Your task to perform on an android device: Open location settings Image 0: 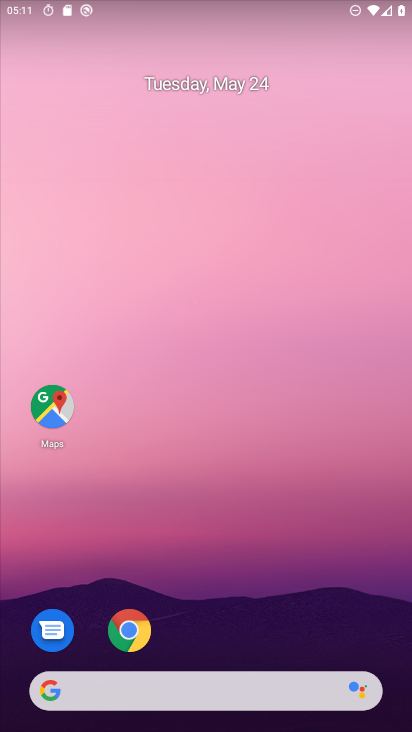
Step 0: drag from (231, 607) to (181, 390)
Your task to perform on an android device: Open location settings Image 1: 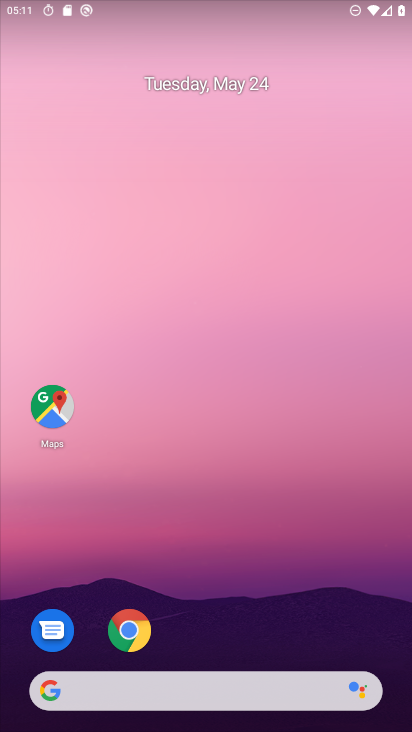
Step 1: click (214, 24)
Your task to perform on an android device: Open location settings Image 2: 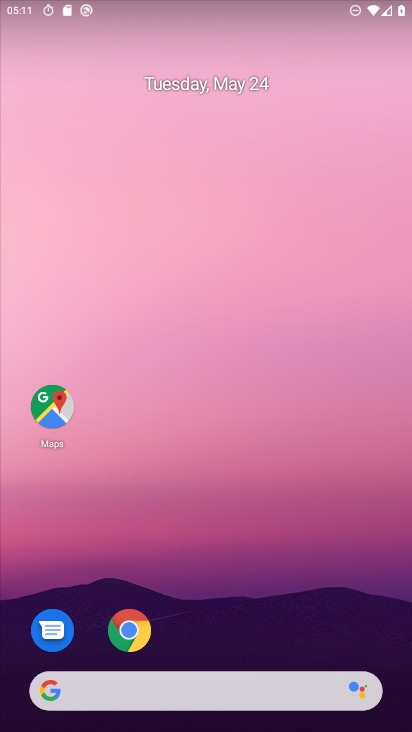
Step 2: drag from (193, 3) to (237, 14)
Your task to perform on an android device: Open location settings Image 3: 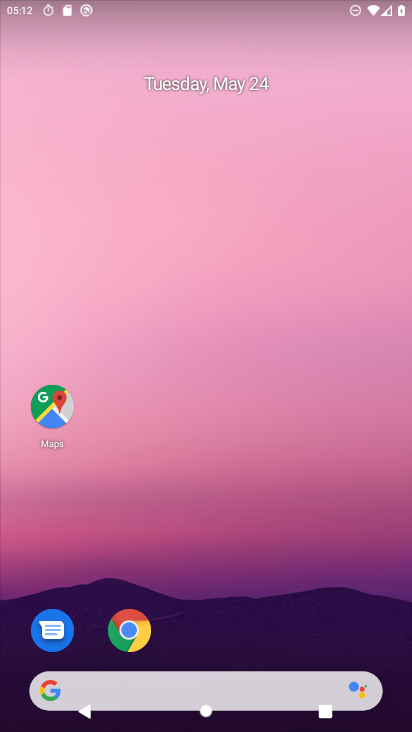
Step 3: click (219, 11)
Your task to perform on an android device: Open location settings Image 4: 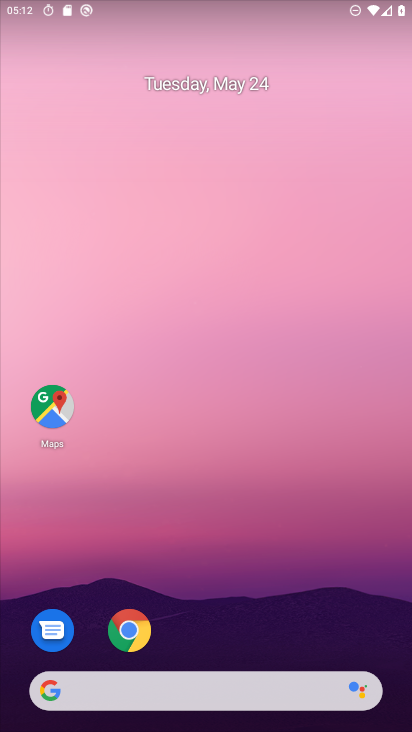
Step 4: click (255, 31)
Your task to perform on an android device: Open location settings Image 5: 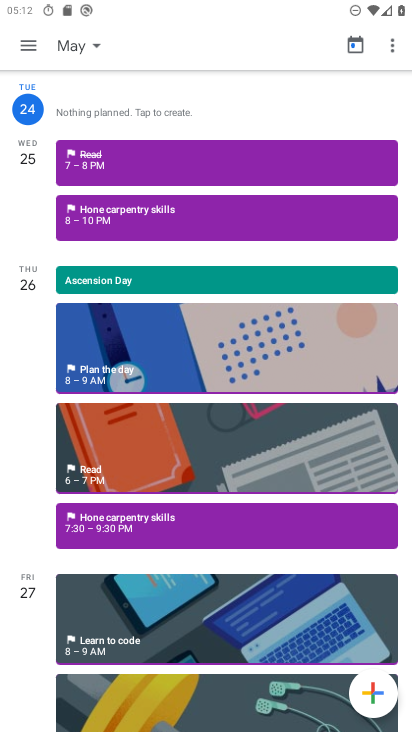
Step 5: press home button
Your task to perform on an android device: Open location settings Image 6: 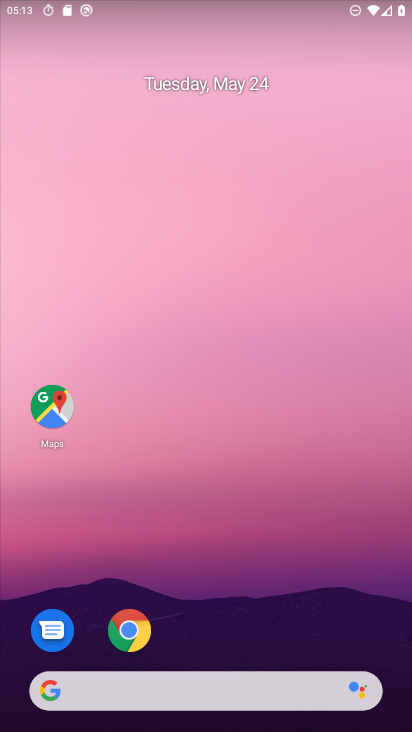
Step 6: drag from (243, 630) to (361, 7)
Your task to perform on an android device: Open location settings Image 7: 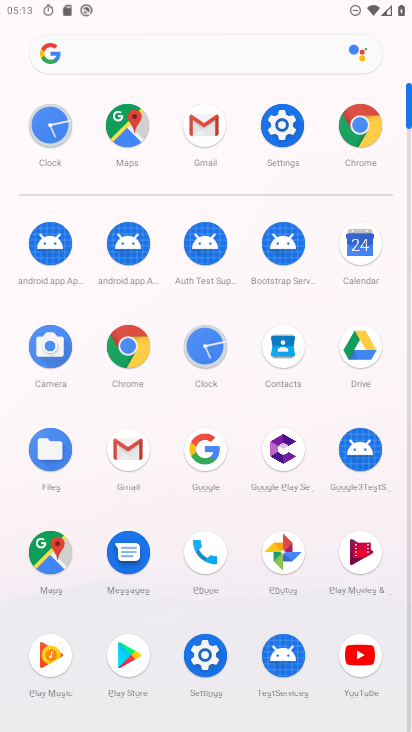
Step 7: click (198, 660)
Your task to perform on an android device: Open location settings Image 8: 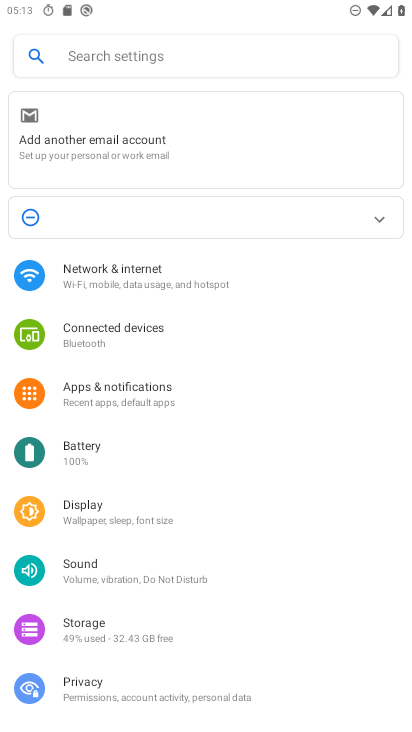
Step 8: drag from (113, 628) to (174, 132)
Your task to perform on an android device: Open location settings Image 9: 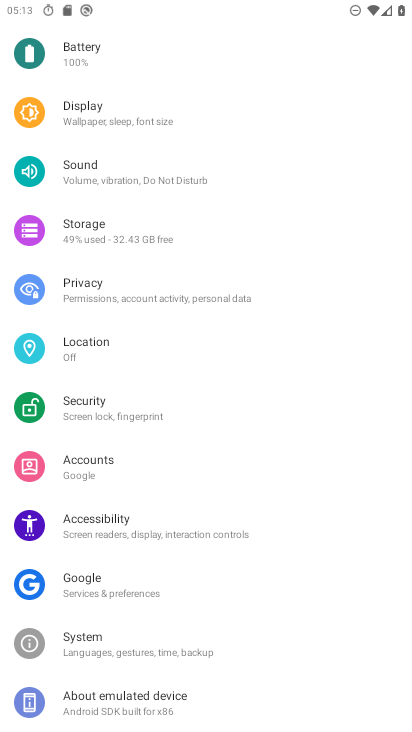
Step 9: click (122, 357)
Your task to perform on an android device: Open location settings Image 10: 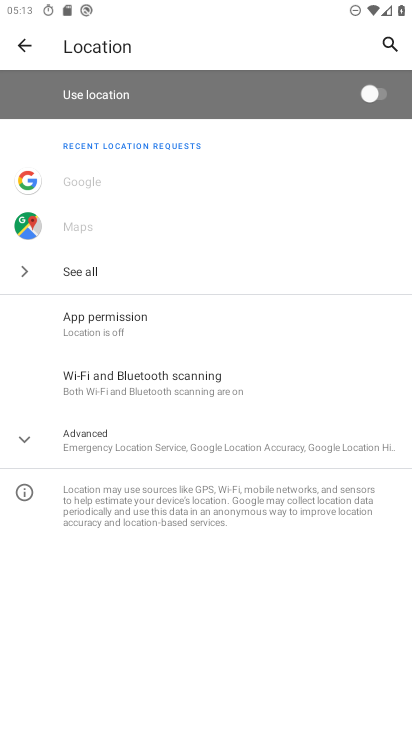
Step 10: task complete